Your task to perform on an android device: What's the weather? Image 0: 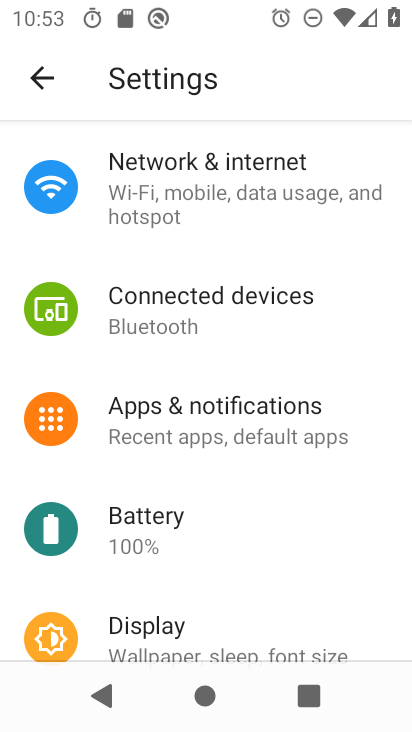
Step 0: press home button
Your task to perform on an android device: What's the weather? Image 1: 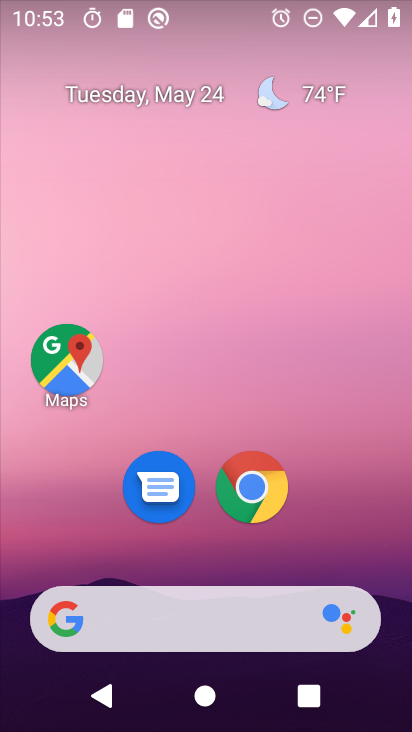
Step 1: click (325, 101)
Your task to perform on an android device: What's the weather? Image 2: 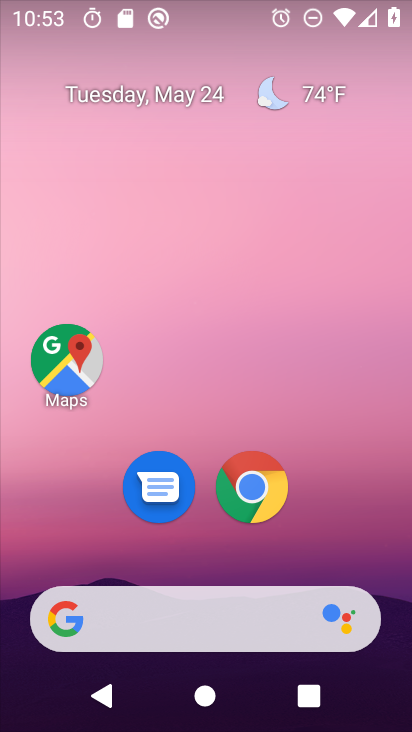
Step 2: click (317, 97)
Your task to perform on an android device: What's the weather? Image 3: 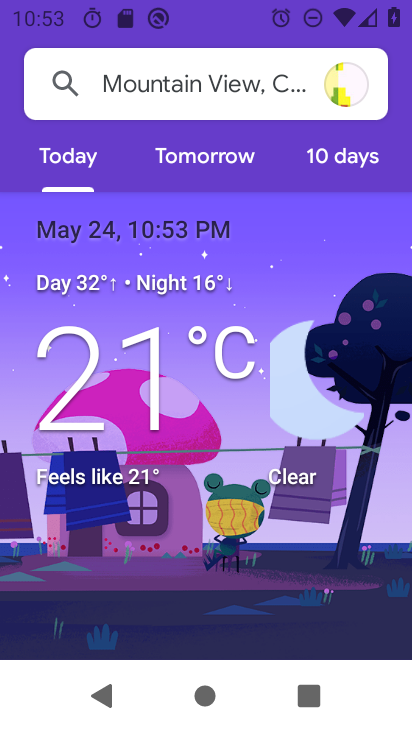
Step 3: task complete